Your task to perform on an android device: delete the emails in spam in the gmail app Image 0: 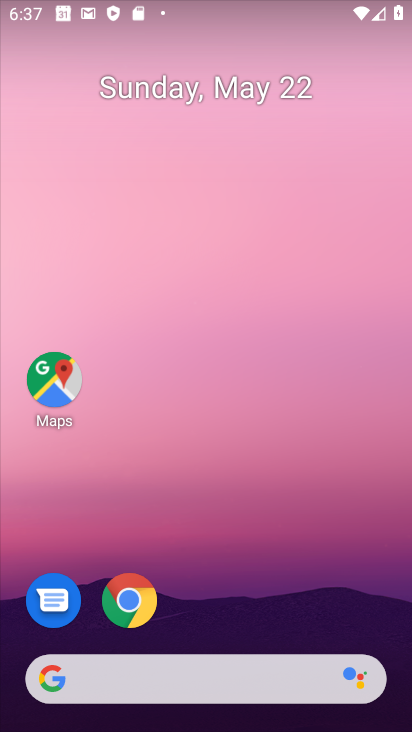
Step 0: drag from (312, 624) to (254, 150)
Your task to perform on an android device: delete the emails in spam in the gmail app Image 1: 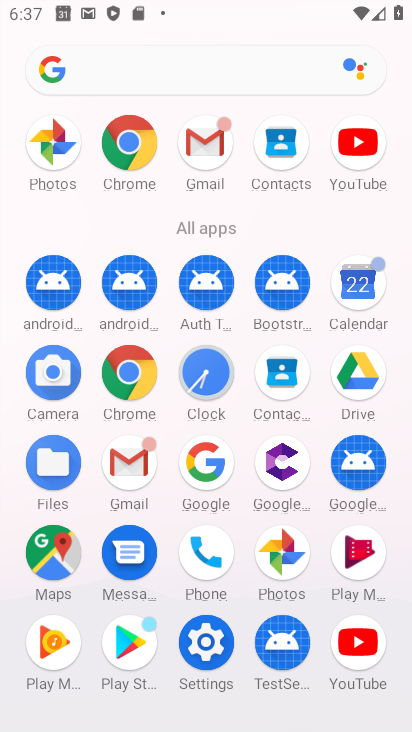
Step 1: click (122, 480)
Your task to perform on an android device: delete the emails in spam in the gmail app Image 2: 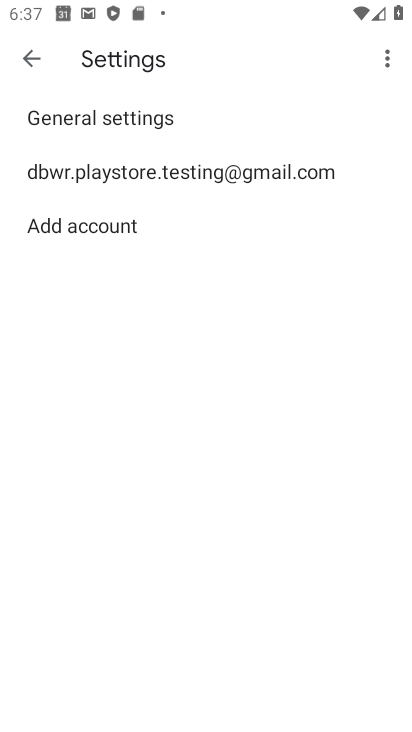
Step 2: press back button
Your task to perform on an android device: delete the emails in spam in the gmail app Image 3: 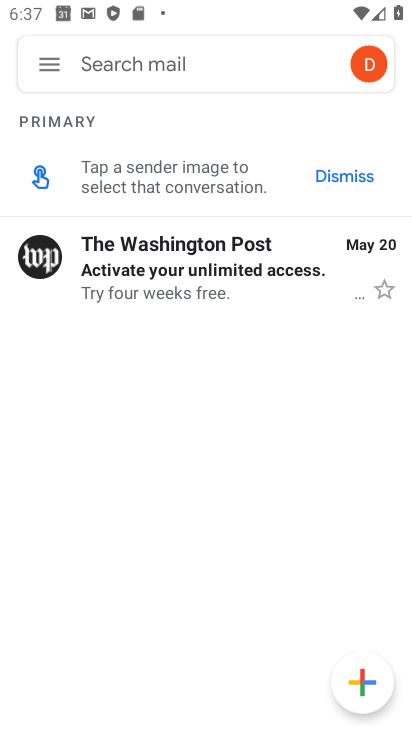
Step 3: click (50, 57)
Your task to perform on an android device: delete the emails in spam in the gmail app Image 4: 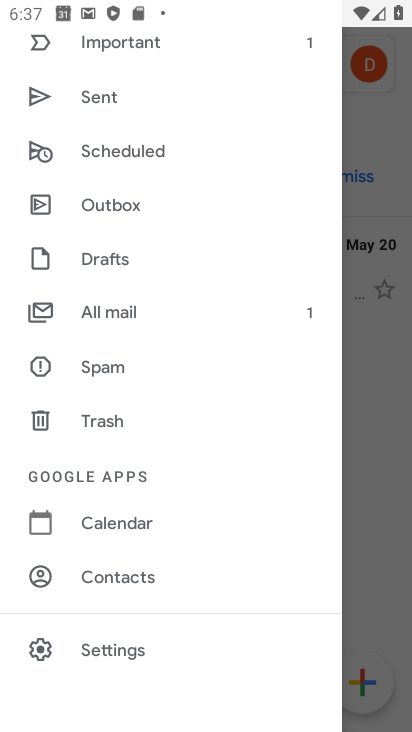
Step 4: click (79, 353)
Your task to perform on an android device: delete the emails in spam in the gmail app Image 5: 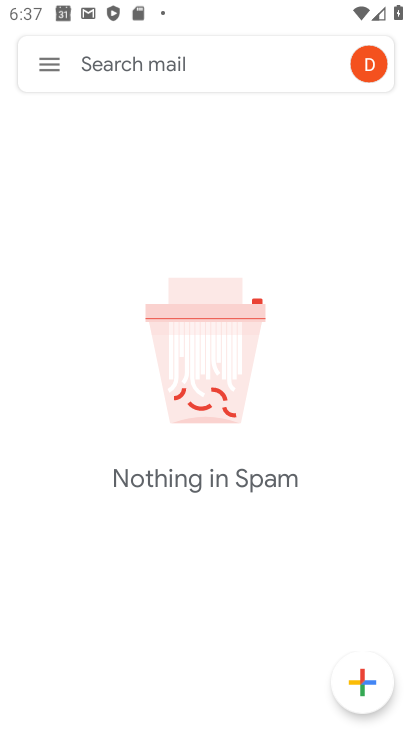
Step 5: task complete